Your task to perform on an android device: all mails in gmail Image 0: 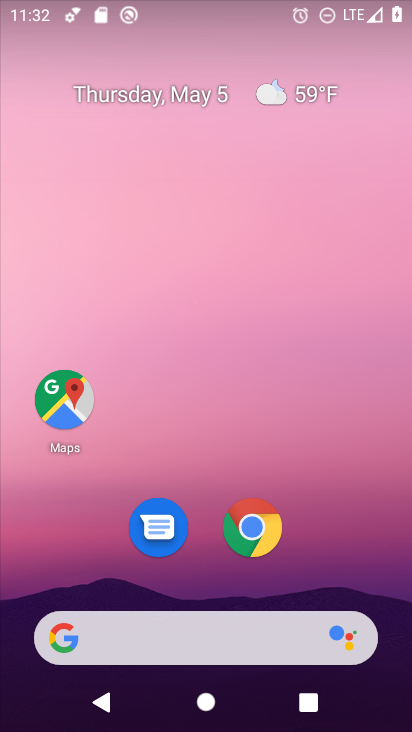
Step 0: drag from (263, 700) to (274, 8)
Your task to perform on an android device: all mails in gmail Image 1: 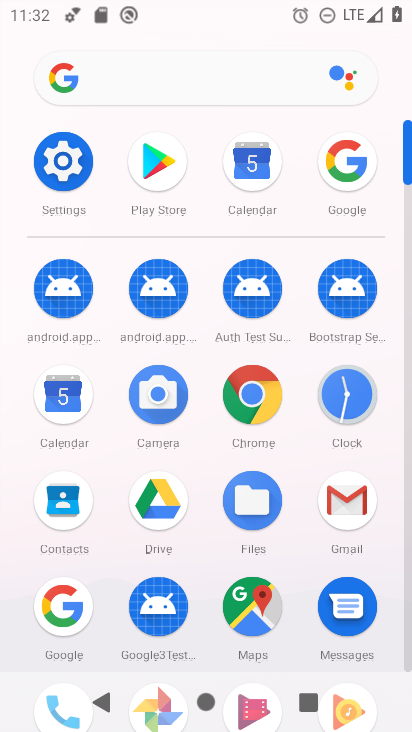
Step 1: click (351, 509)
Your task to perform on an android device: all mails in gmail Image 2: 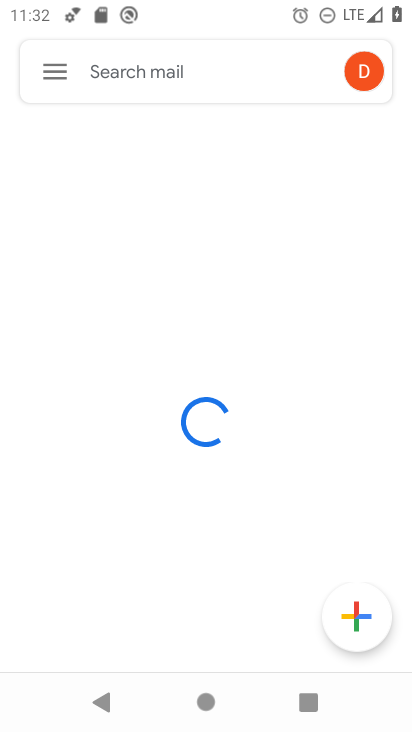
Step 2: click (48, 66)
Your task to perform on an android device: all mails in gmail Image 3: 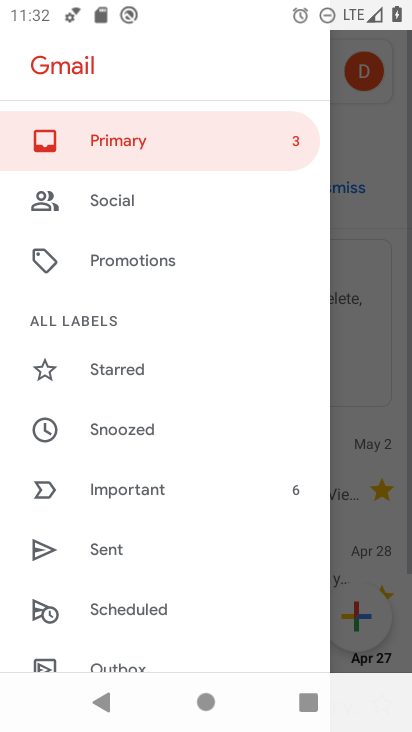
Step 3: drag from (216, 622) to (224, 97)
Your task to perform on an android device: all mails in gmail Image 4: 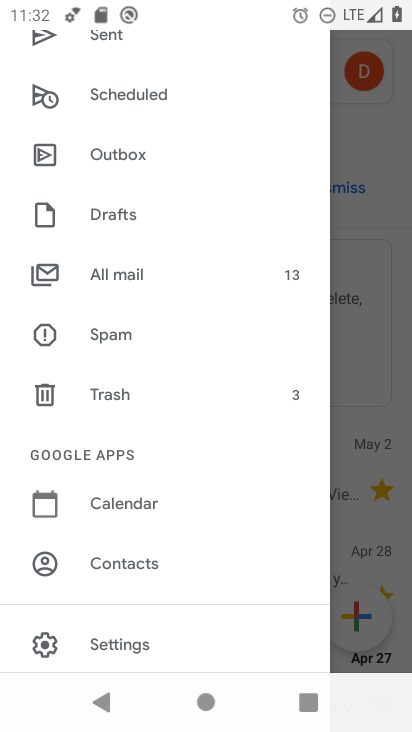
Step 4: click (161, 272)
Your task to perform on an android device: all mails in gmail Image 5: 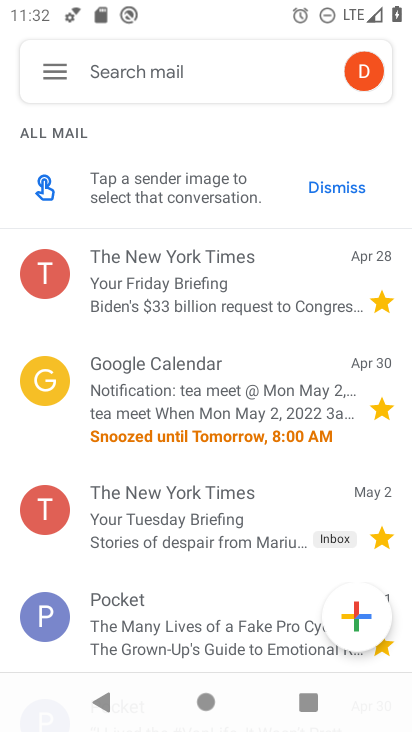
Step 5: task complete